Your task to perform on an android device: find photos in the google photos app Image 0: 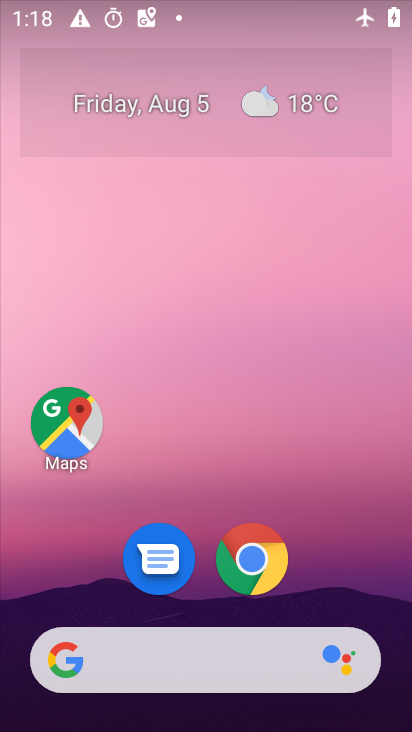
Step 0: drag from (85, 702) to (187, 347)
Your task to perform on an android device: find photos in the google photos app Image 1: 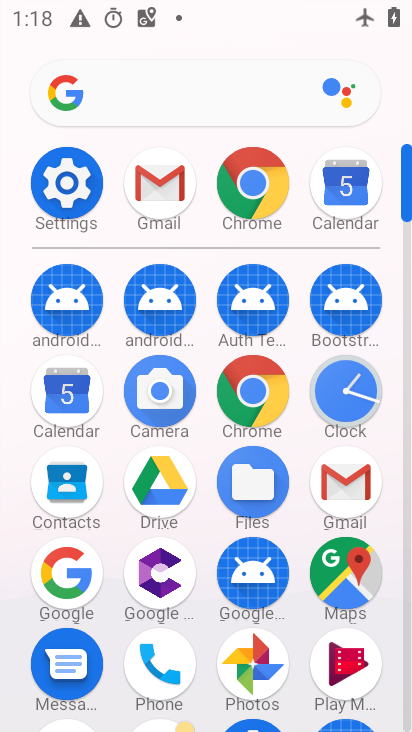
Step 1: click (256, 664)
Your task to perform on an android device: find photos in the google photos app Image 2: 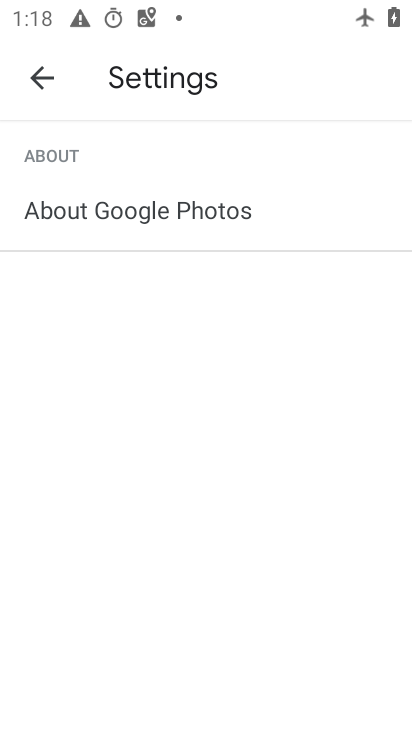
Step 2: click (25, 86)
Your task to perform on an android device: find photos in the google photos app Image 3: 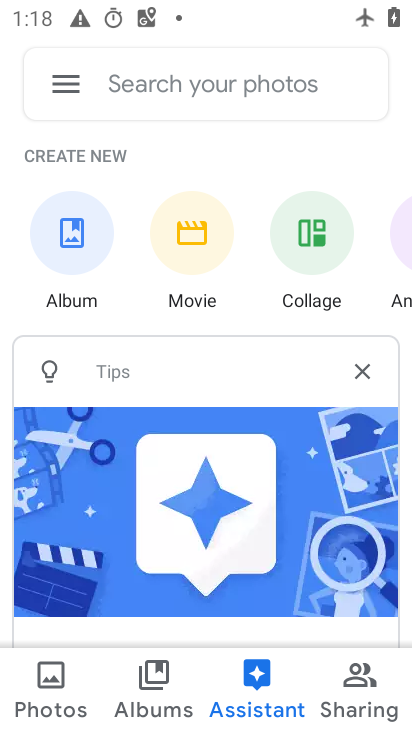
Step 3: click (61, 684)
Your task to perform on an android device: find photos in the google photos app Image 4: 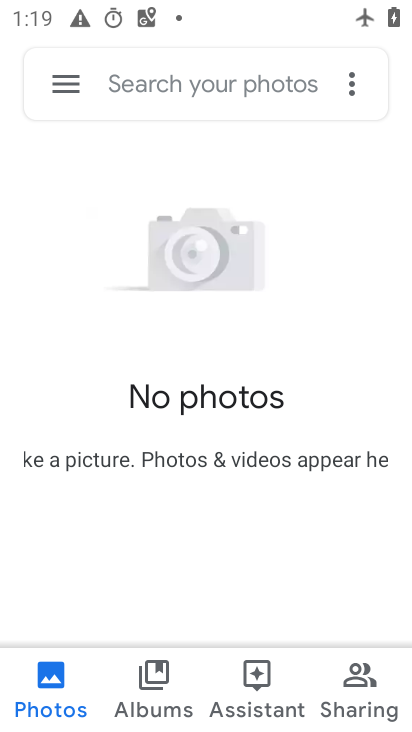
Step 4: task complete